Your task to perform on an android device: turn off location Image 0: 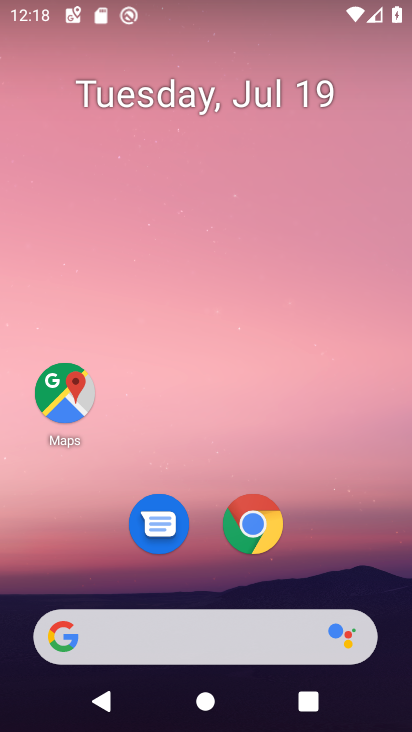
Step 0: drag from (339, 546) to (346, 56)
Your task to perform on an android device: turn off location Image 1: 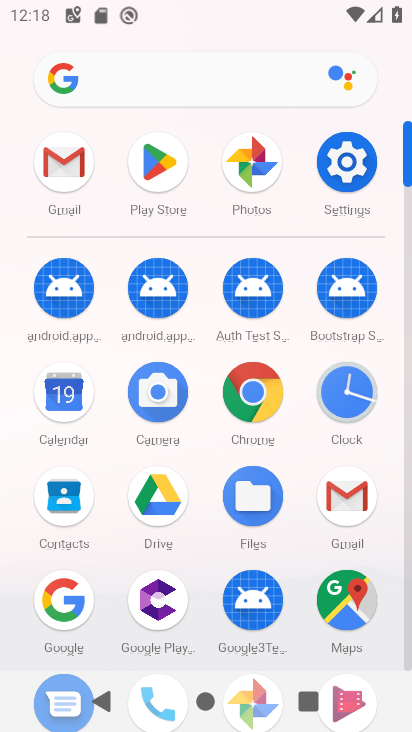
Step 1: click (356, 149)
Your task to perform on an android device: turn off location Image 2: 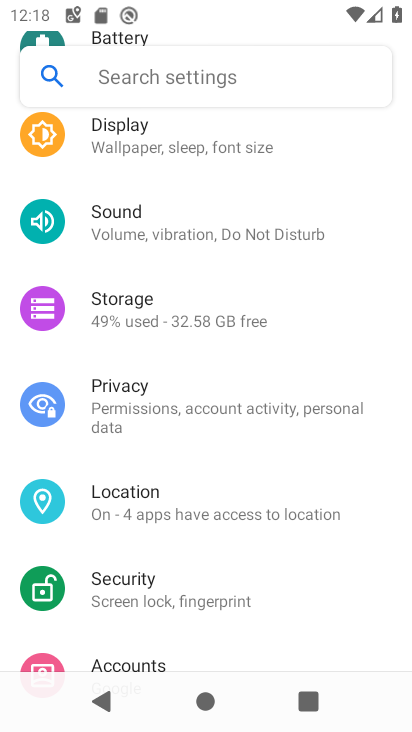
Step 2: click (236, 490)
Your task to perform on an android device: turn off location Image 3: 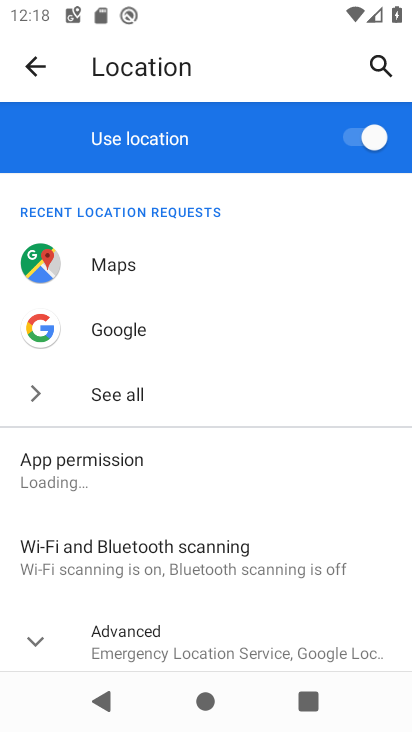
Step 3: click (369, 138)
Your task to perform on an android device: turn off location Image 4: 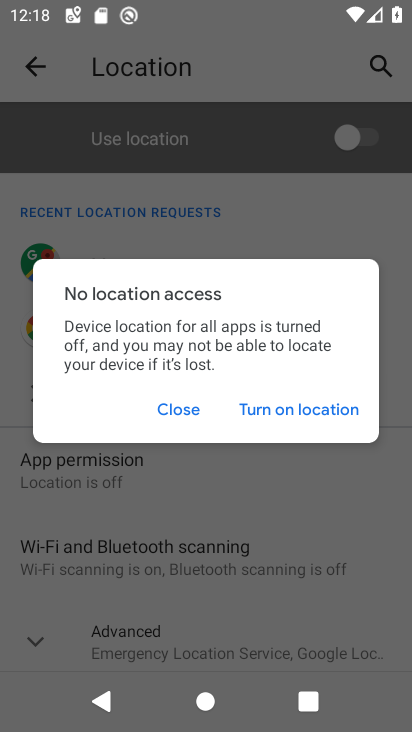
Step 4: click (189, 400)
Your task to perform on an android device: turn off location Image 5: 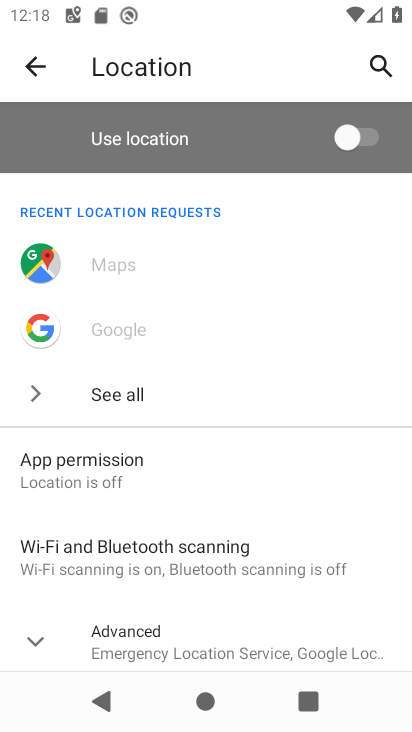
Step 5: task complete